Your task to perform on an android device: Open notification settings Image 0: 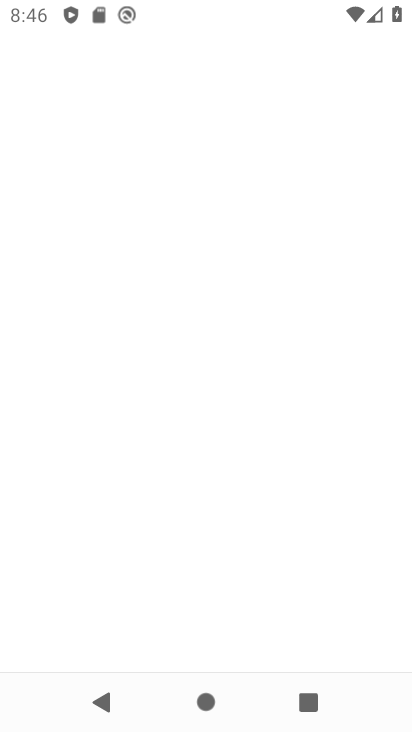
Step 0: drag from (338, 472) to (292, 214)
Your task to perform on an android device: Open notification settings Image 1: 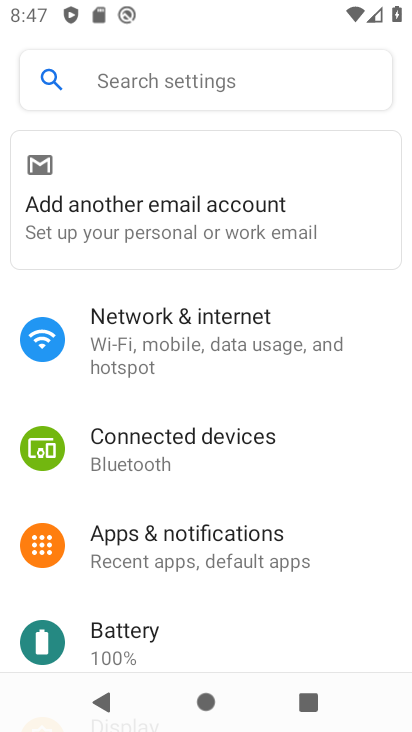
Step 1: press home button
Your task to perform on an android device: Open notification settings Image 2: 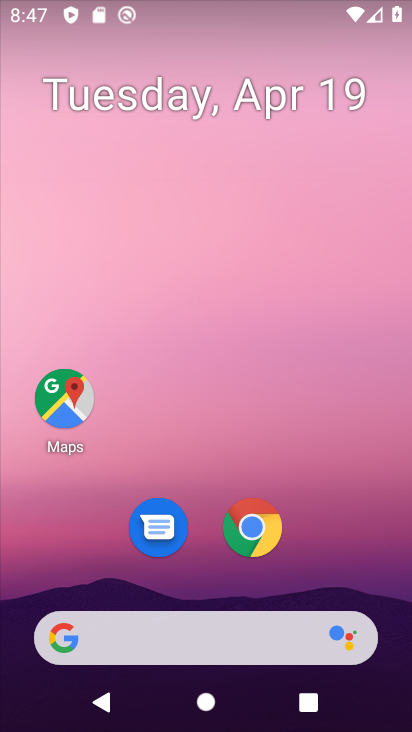
Step 2: drag from (371, 583) to (293, 132)
Your task to perform on an android device: Open notification settings Image 3: 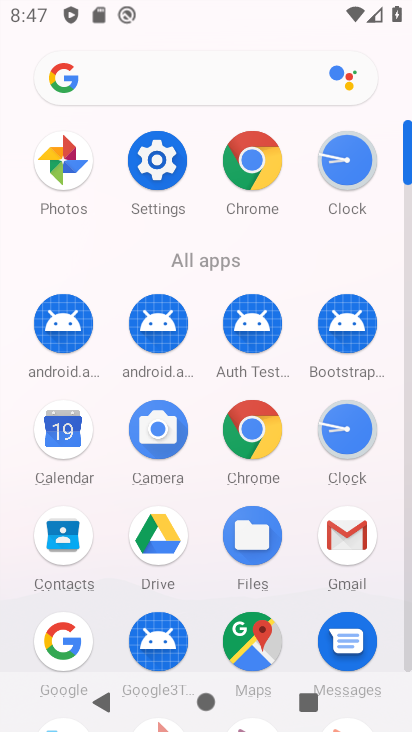
Step 3: click (163, 136)
Your task to perform on an android device: Open notification settings Image 4: 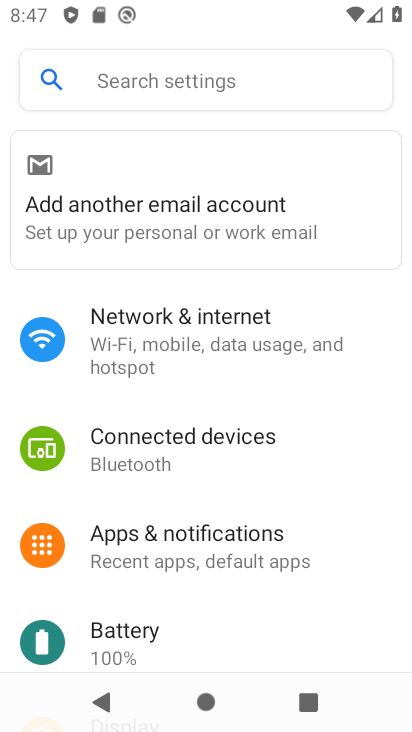
Step 4: click (203, 553)
Your task to perform on an android device: Open notification settings Image 5: 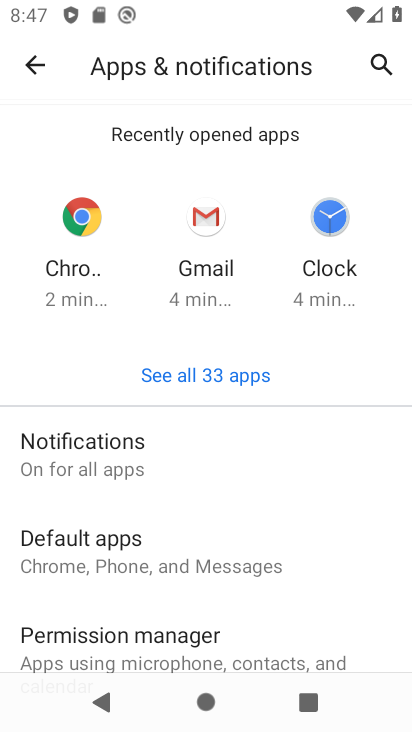
Step 5: click (202, 462)
Your task to perform on an android device: Open notification settings Image 6: 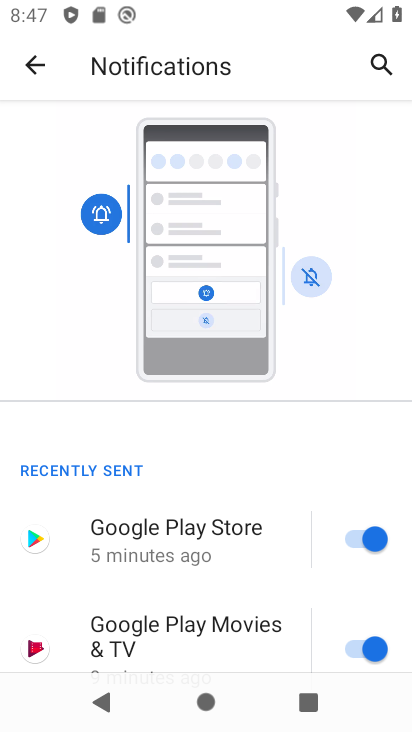
Step 6: drag from (268, 637) to (181, 131)
Your task to perform on an android device: Open notification settings Image 7: 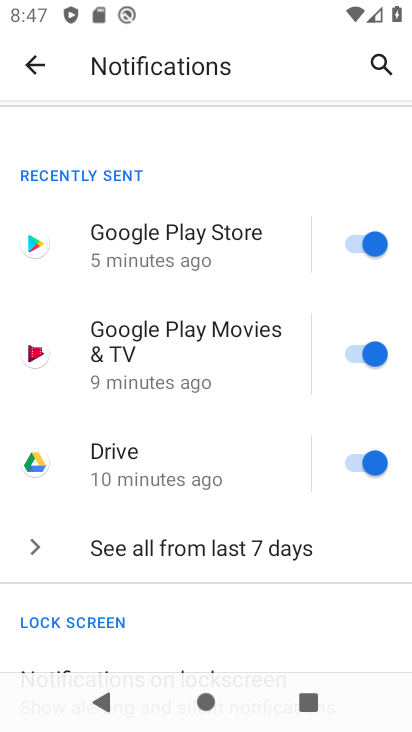
Step 7: drag from (333, 602) to (223, 95)
Your task to perform on an android device: Open notification settings Image 8: 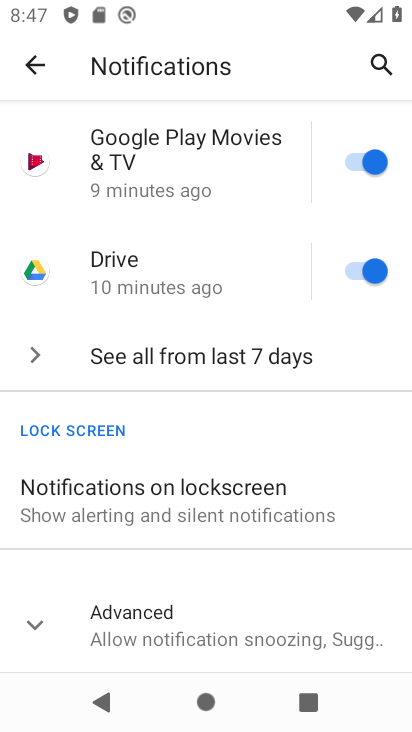
Step 8: click (240, 623)
Your task to perform on an android device: Open notification settings Image 9: 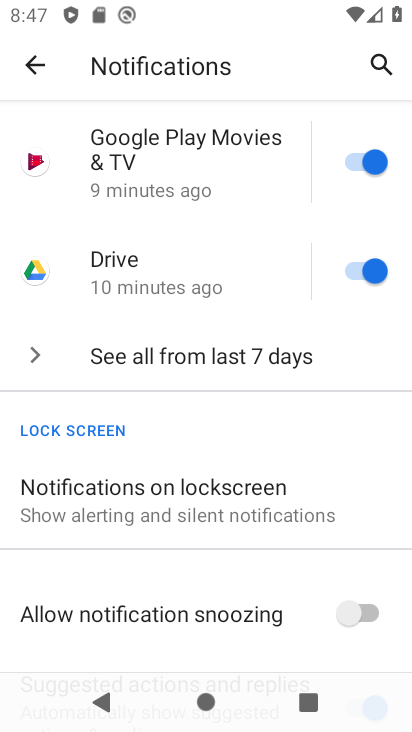
Step 9: task complete